Your task to perform on an android device: turn pop-ups on in chrome Image 0: 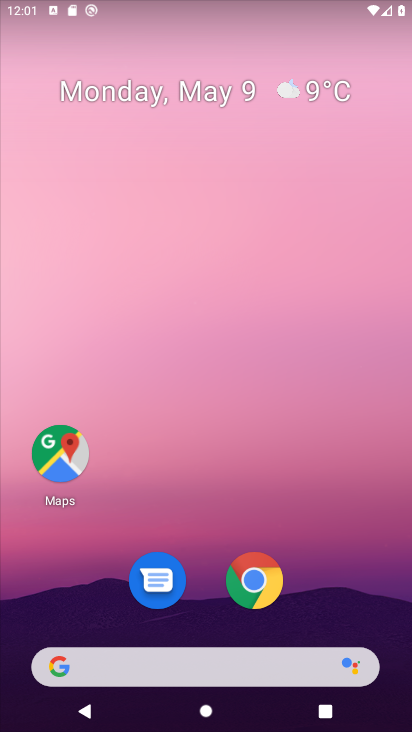
Step 0: click (270, 573)
Your task to perform on an android device: turn pop-ups on in chrome Image 1: 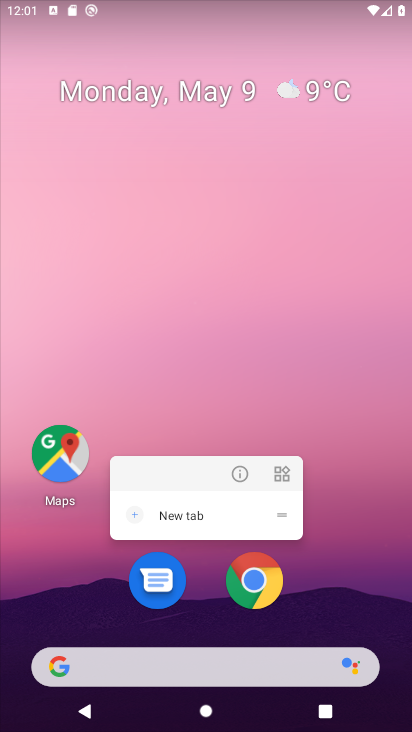
Step 1: click (247, 582)
Your task to perform on an android device: turn pop-ups on in chrome Image 2: 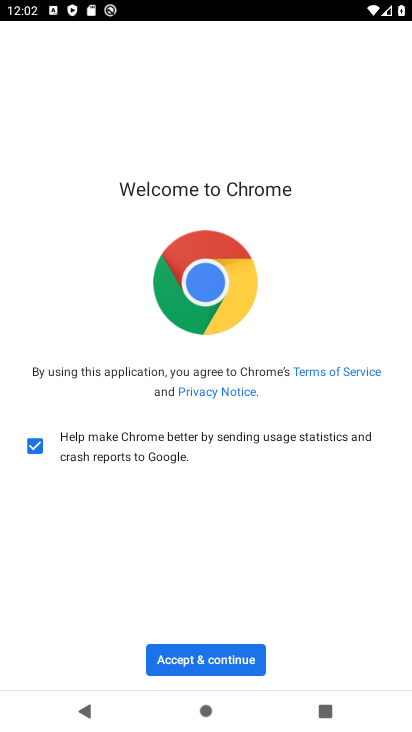
Step 2: click (243, 654)
Your task to perform on an android device: turn pop-ups on in chrome Image 3: 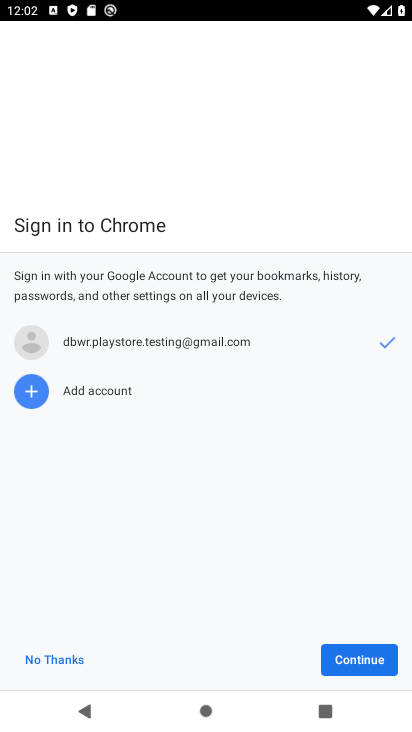
Step 3: click (352, 655)
Your task to perform on an android device: turn pop-ups on in chrome Image 4: 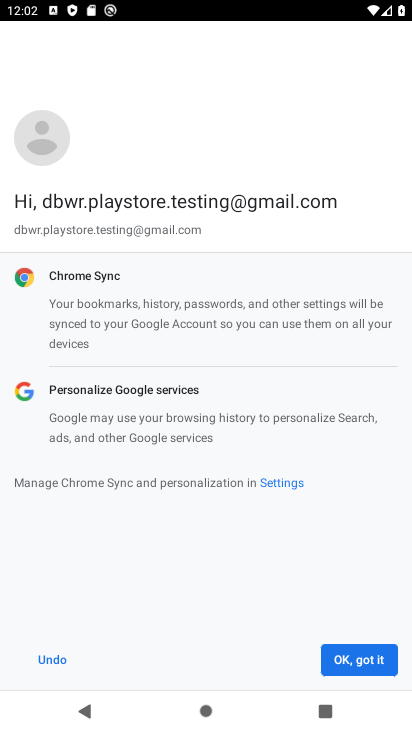
Step 4: click (346, 654)
Your task to perform on an android device: turn pop-ups on in chrome Image 5: 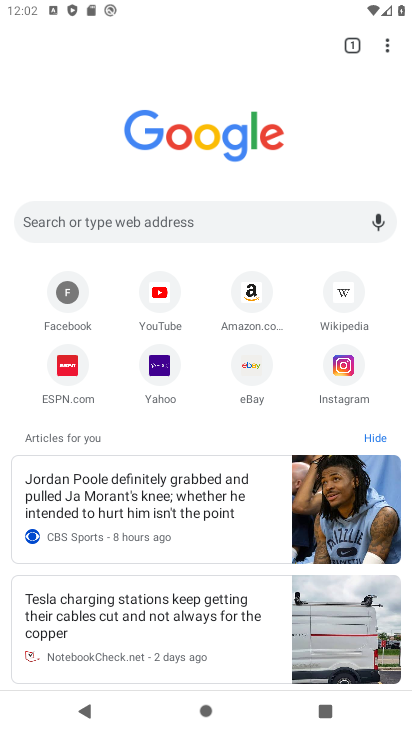
Step 5: click (388, 53)
Your task to perform on an android device: turn pop-ups on in chrome Image 6: 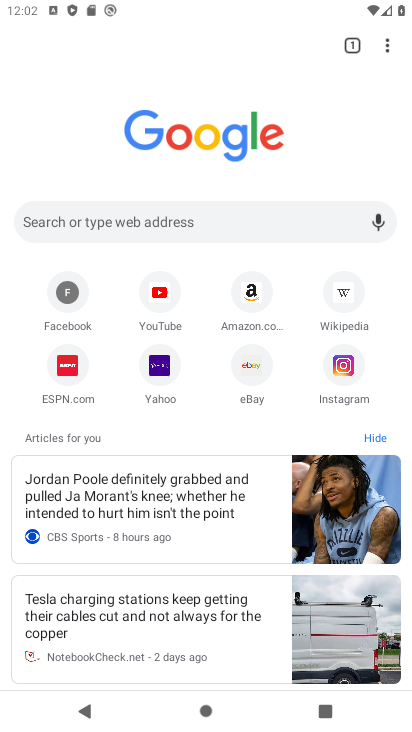
Step 6: click (389, 47)
Your task to perform on an android device: turn pop-ups on in chrome Image 7: 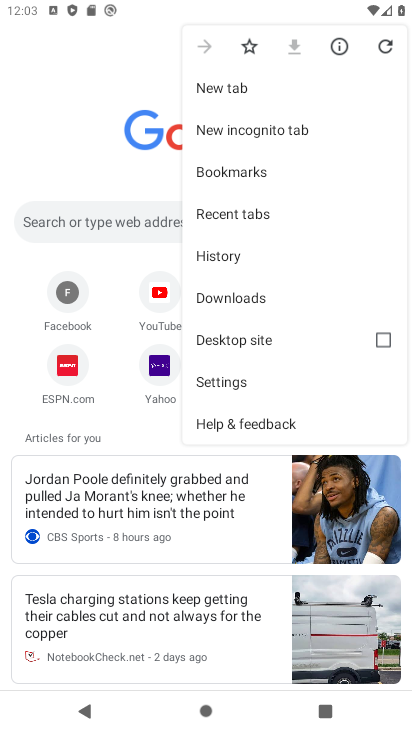
Step 7: click (247, 377)
Your task to perform on an android device: turn pop-ups on in chrome Image 8: 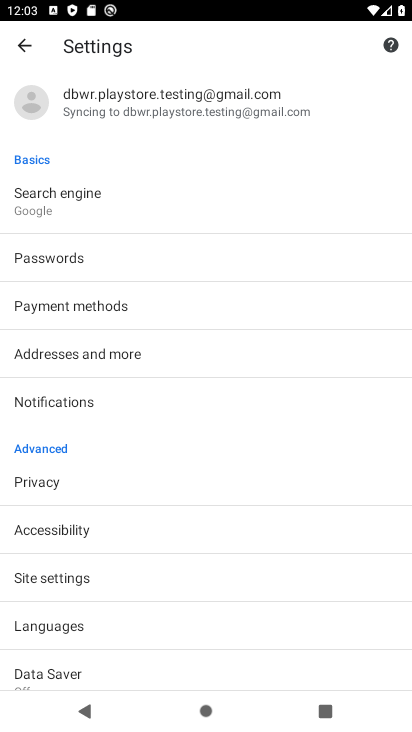
Step 8: click (93, 577)
Your task to perform on an android device: turn pop-ups on in chrome Image 9: 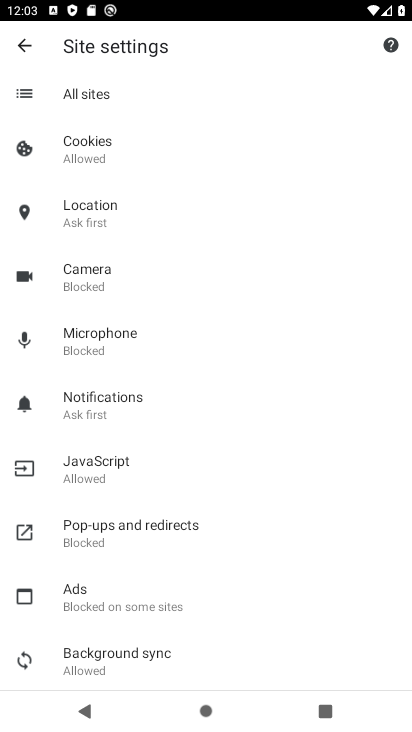
Step 9: click (152, 530)
Your task to perform on an android device: turn pop-ups on in chrome Image 10: 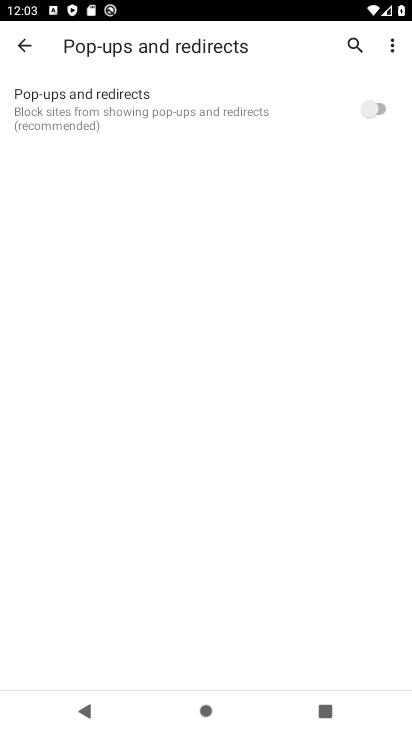
Step 10: click (378, 101)
Your task to perform on an android device: turn pop-ups on in chrome Image 11: 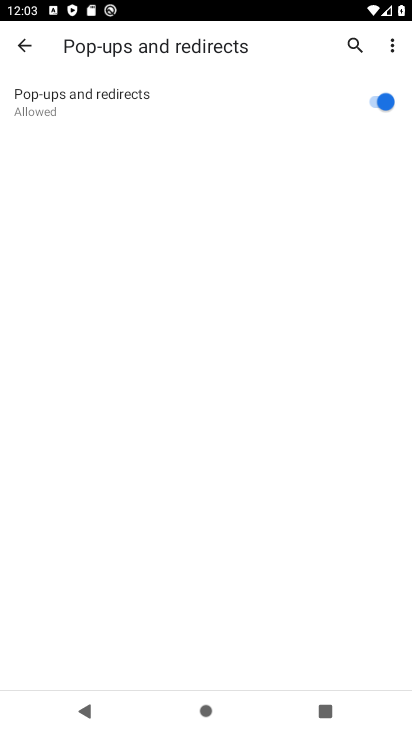
Step 11: task complete